Your task to perform on an android device: change keyboard looks Image 0: 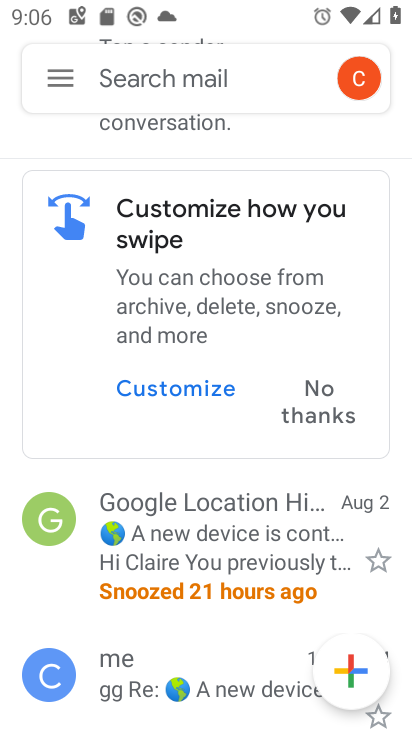
Step 0: press home button
Your task to perform on an android device: change keyboard looks Image 1: 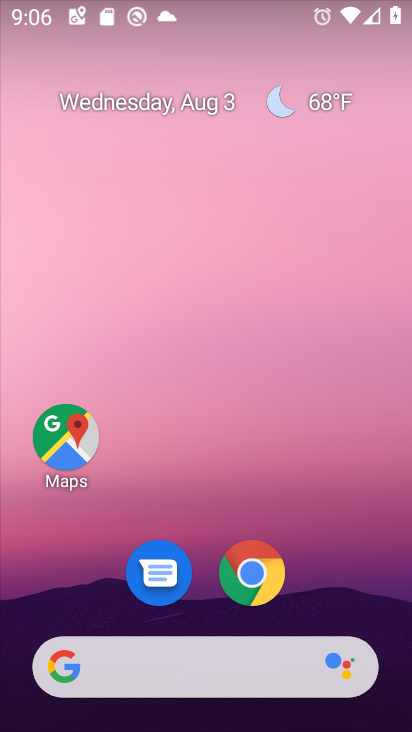
Step 1: drag from (343, 625) to (325, 5)
Your task to perform on an android device: change keyboard looks Image 2: 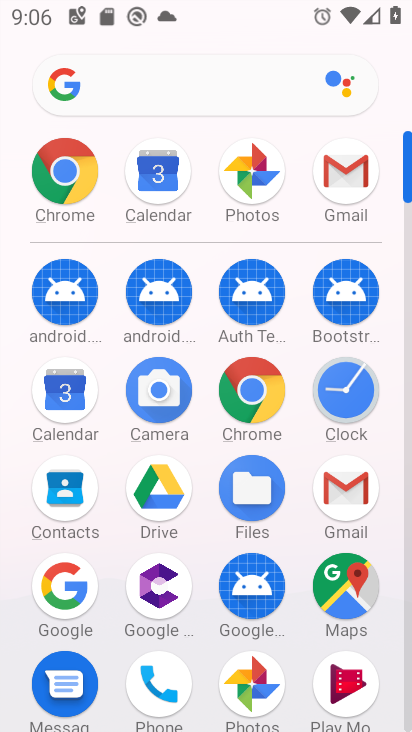
Step 2: click (408, 504)
Your task to perform on an android device: change keyboard looks Image 3: 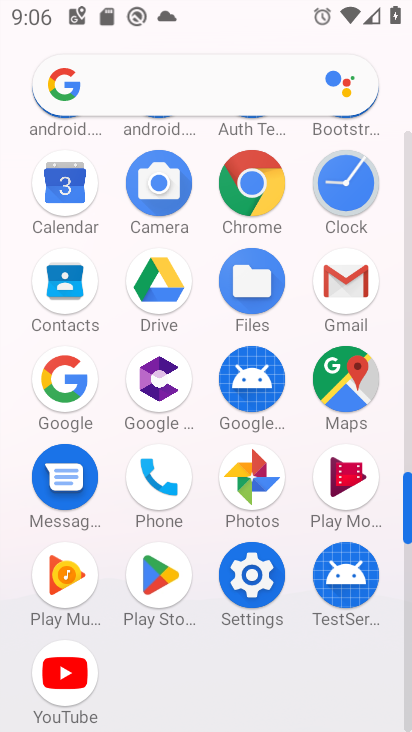
Step 3: click (253, 573)
Your task to perform on an android device: change keyboard looks Image 4: 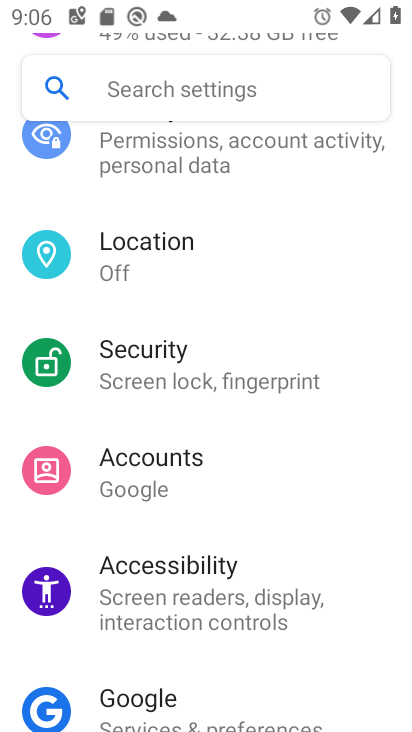
Step 4: drag from (391, 651) to (386, 274)
Your task to perform on an android device: change keyboard looks Image 5: 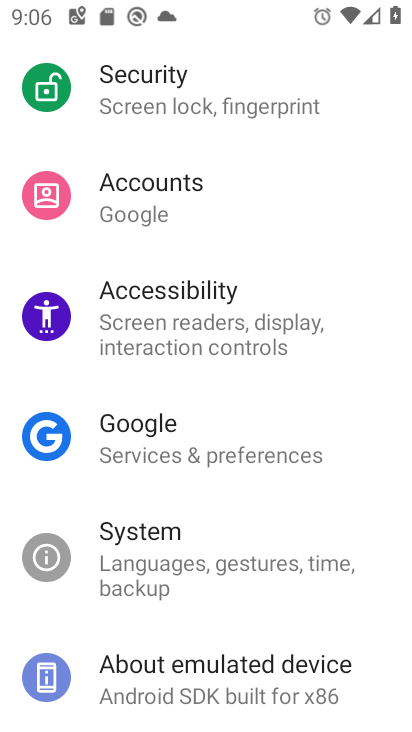
Step 5: click (115, 575)
Your task to perform on an android device: change keyboard looks Image 6: 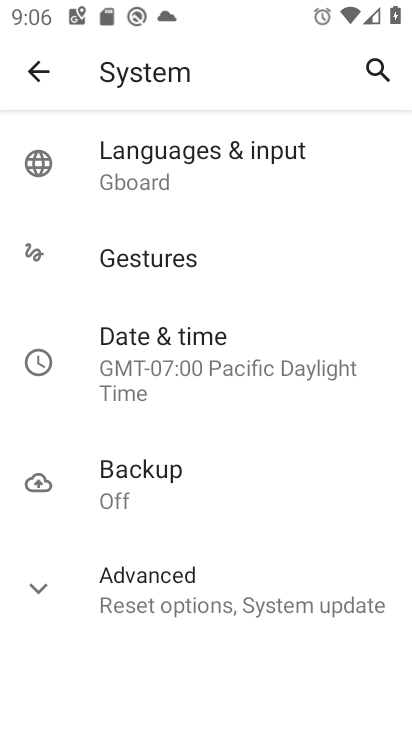
Step 6: click (138, 185)
Your task to perform on an android device: change keyboard looks Image 7: 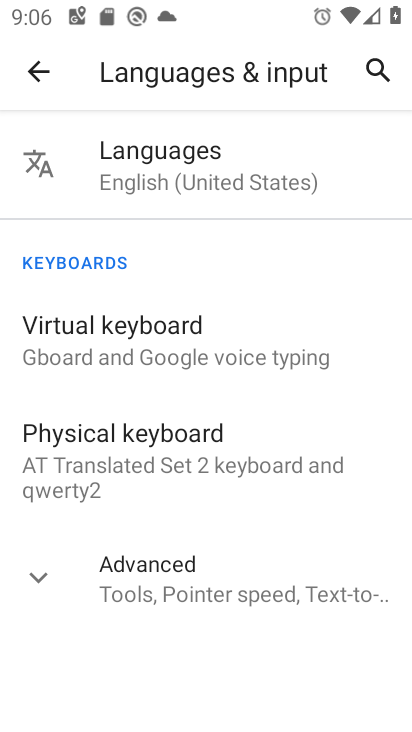
Step 7: click (100, 351)
Your task to perform on an android device: change keyboard looks Image 8: 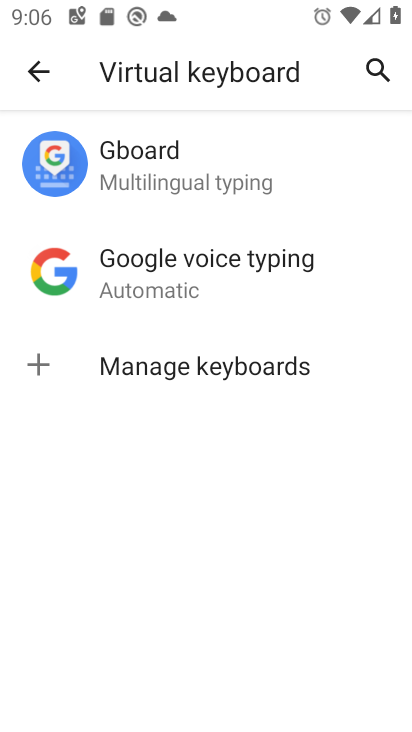
Step 8: click (132, 172)
Your task to perform on an android device: change keyboard looks Image 9: 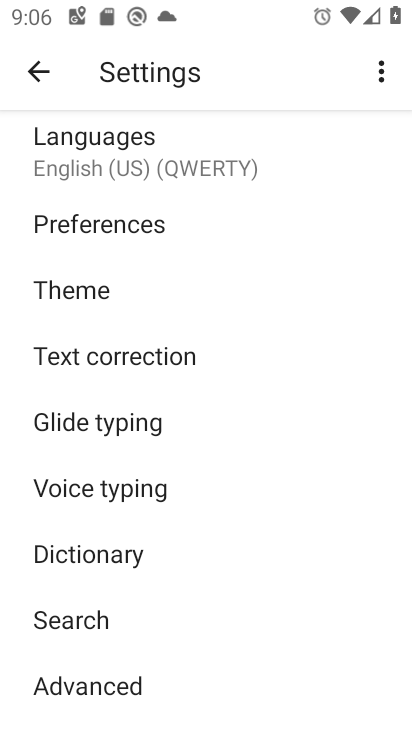
Step 9: click (99, 293)
Your task to perform on an android device: change keyboard looks Image 10: 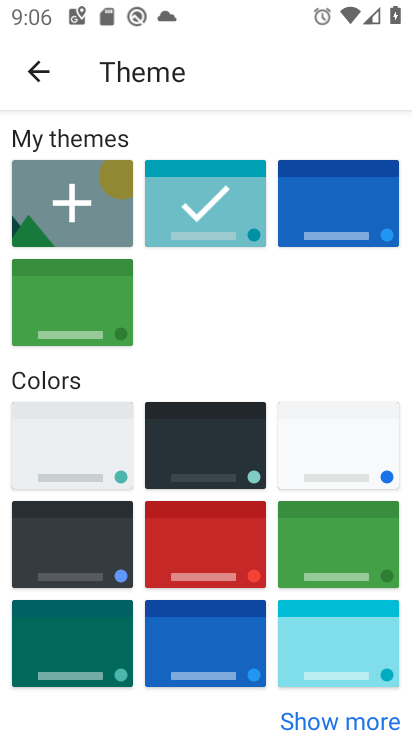
Step 10: click (186, 528)
Your task to perform on an android device: change keyboard looks Image 11: 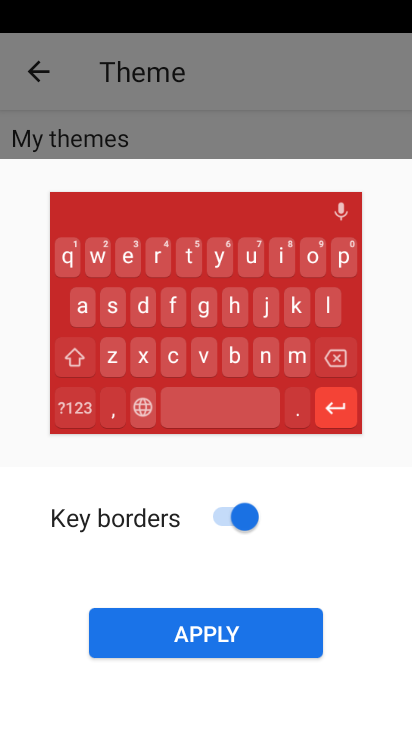
Step 11: click (201, 638)
Your task to perform on an android device: change keyboard looks Image 12: 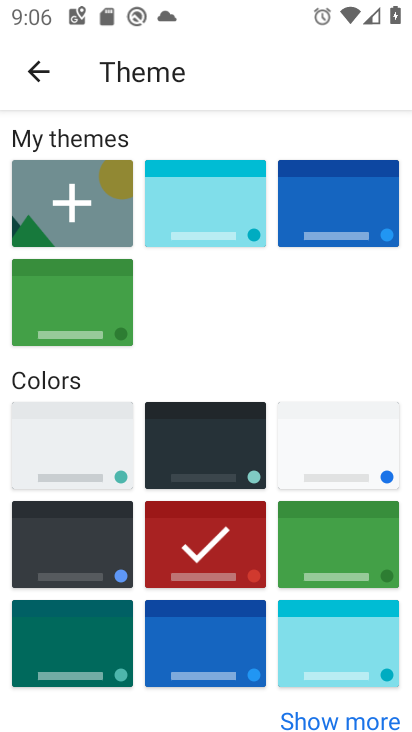
Step 12: task complete